Your task to perform on an android device: What's the weather like in Delhi? Image 0: 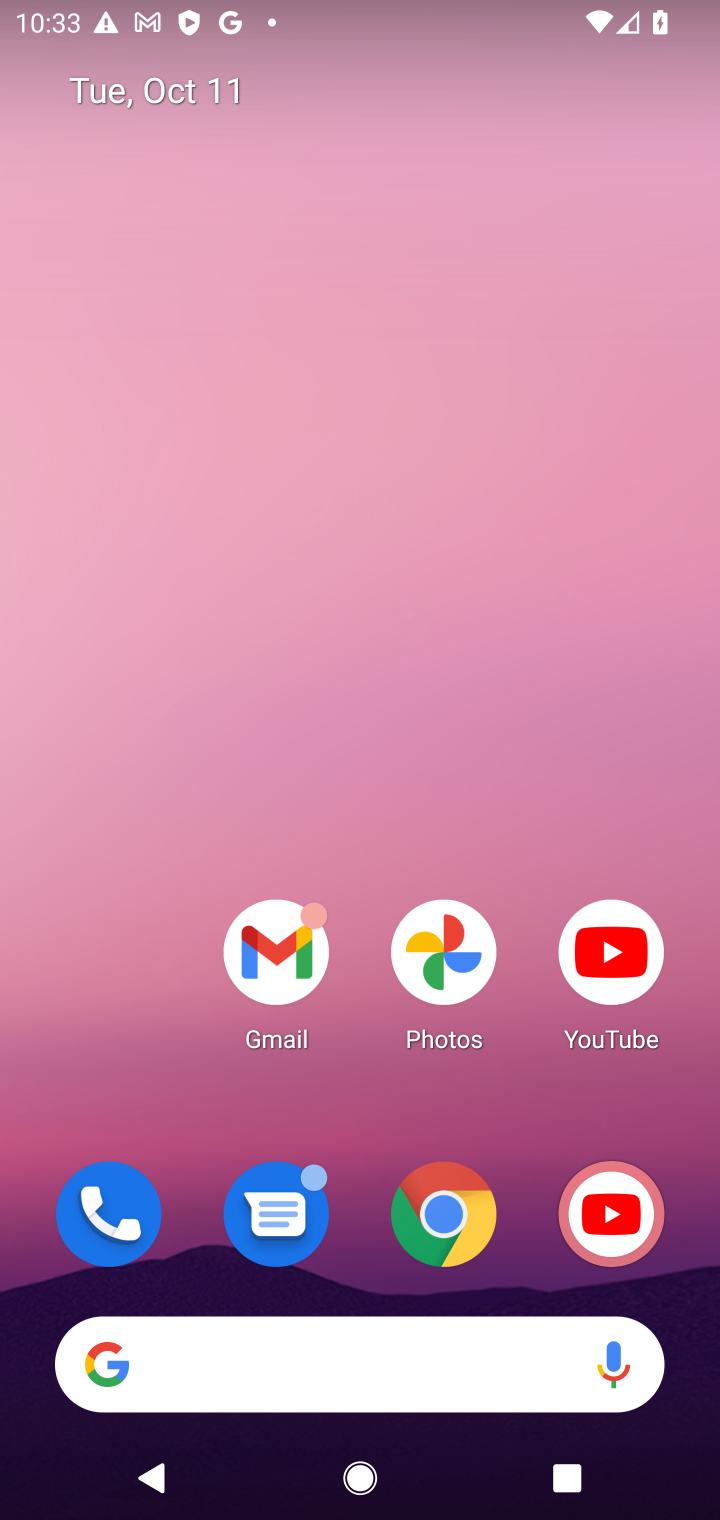
Step 0: drag from (377, 104) to (392, 4)
Your task to perform on an android device: What's the weather like in Delhi? Image 1: 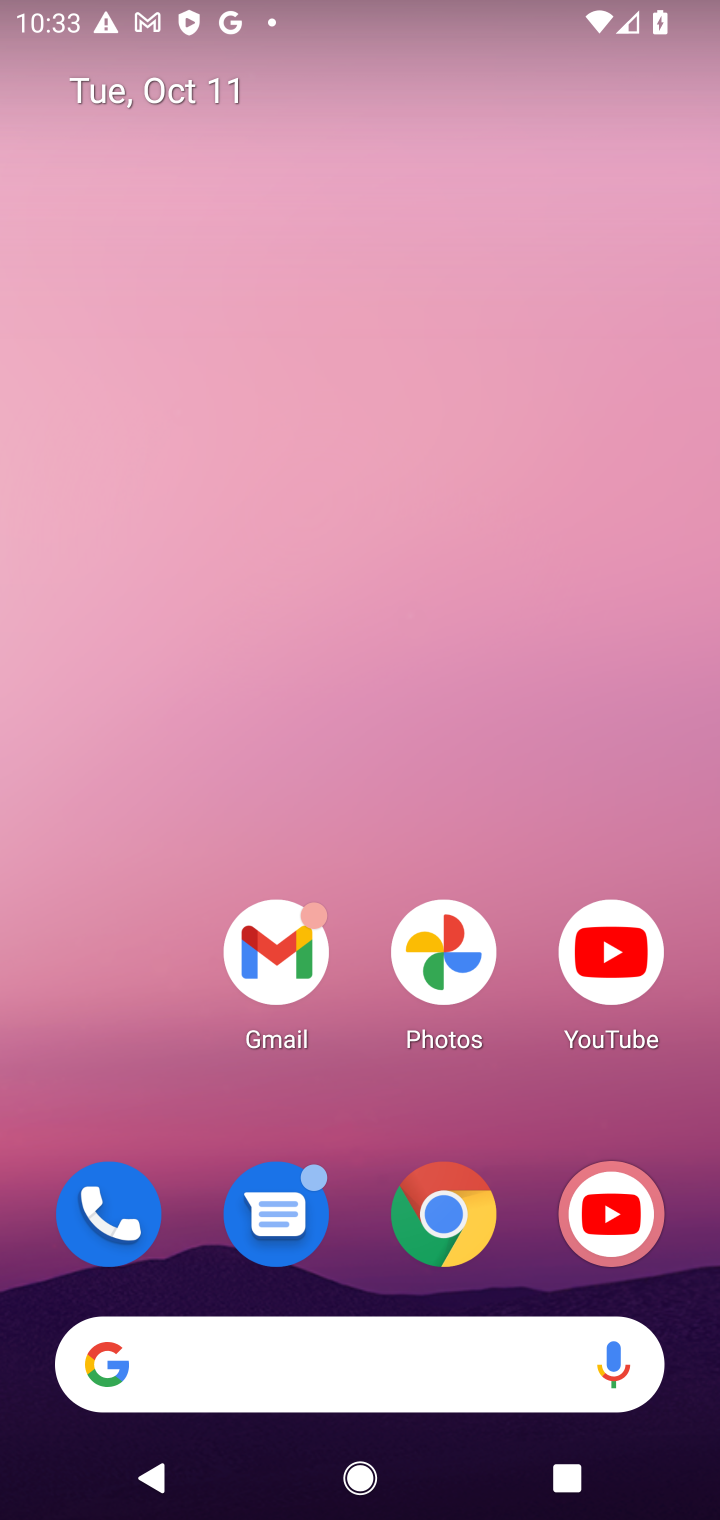
Step 1: drag from (361, 1069) to (387, 298)
Your task to perform on an android device: What's the weather like in Delhi? Image 2: 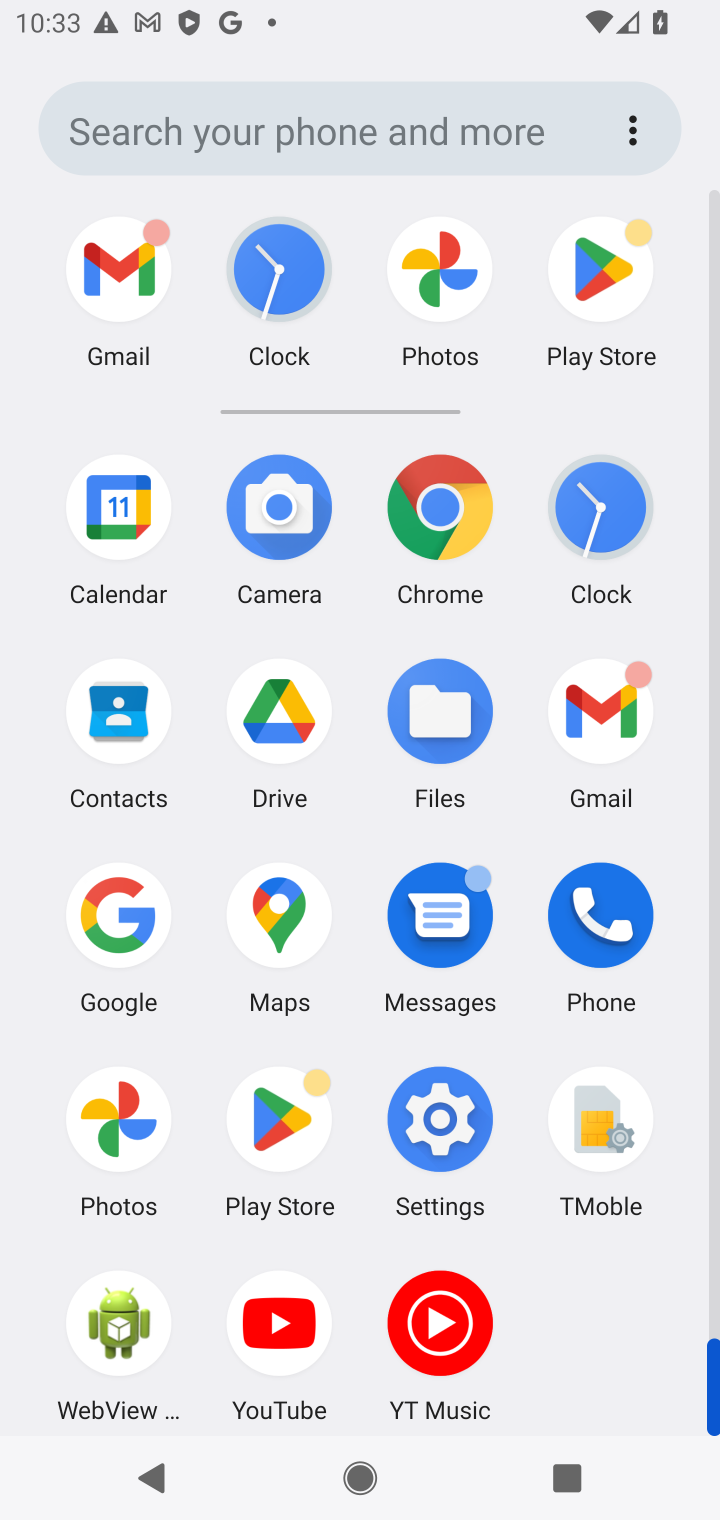
Step 2: click (441, 509)
Your task to perform on an android device: What's the weather like in Delhi? Image 3: 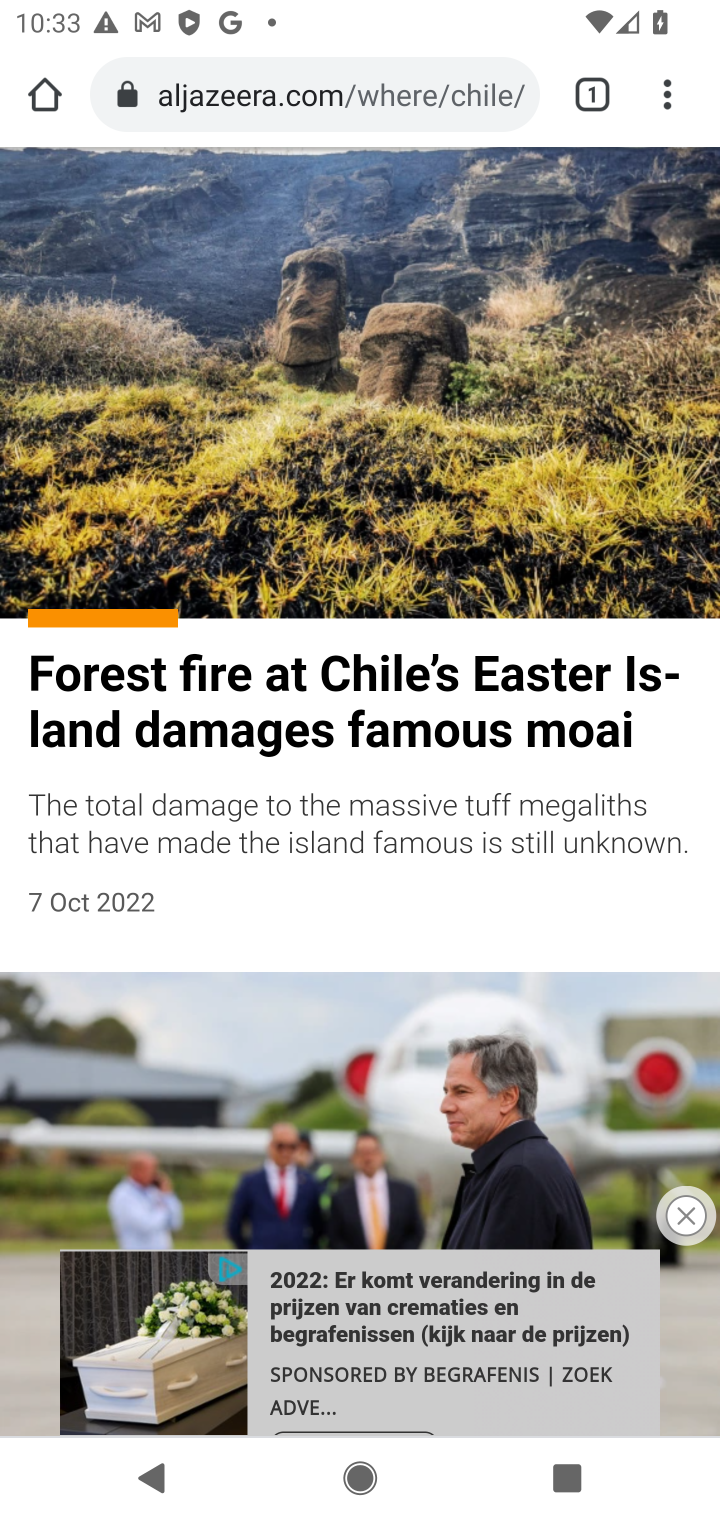
Step 3: click (364, 88)
Your task to perform on an android device: What's the weather like in Delhi? Image 4: 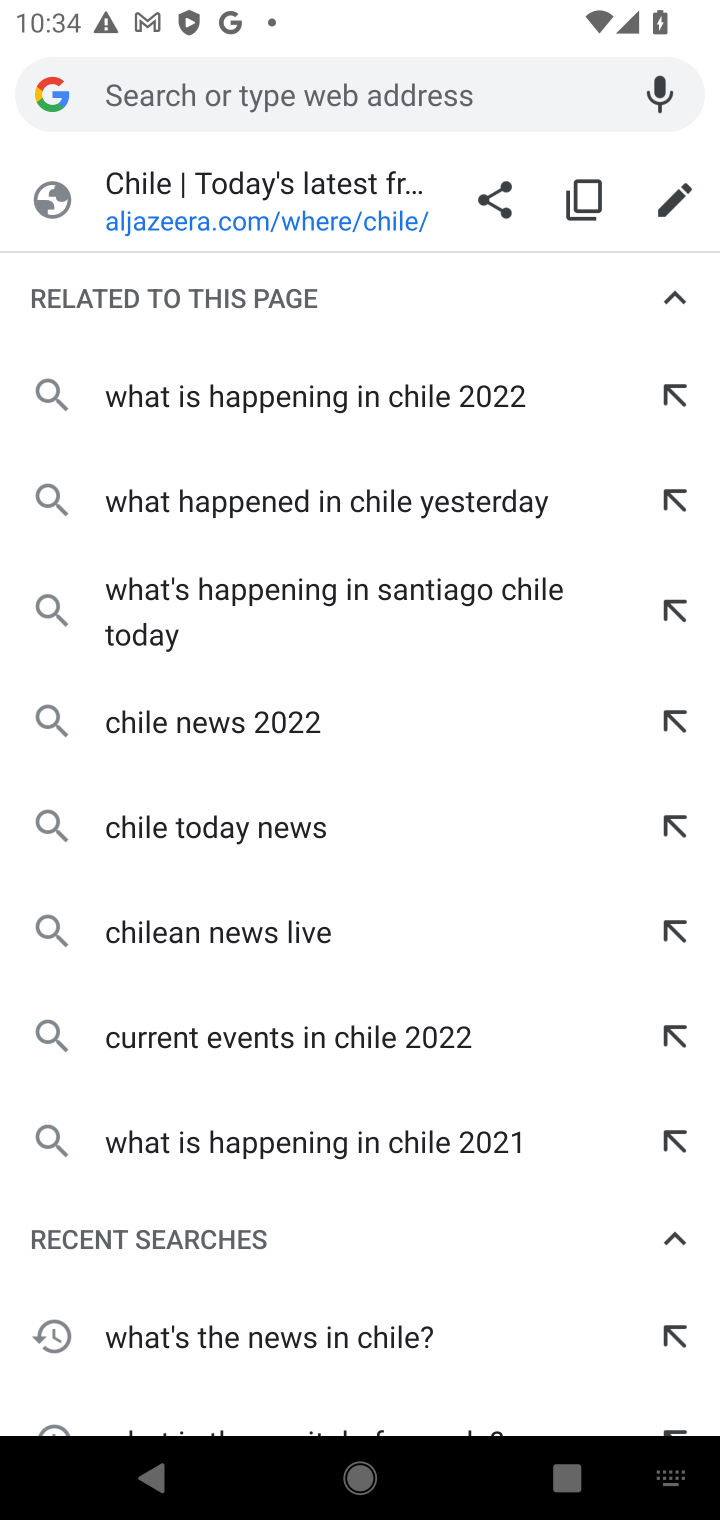
Step 4: type "What is the weather like in Delhi?"
Your task to perform on an android device: What's the weather like in Delhi? Image 5: 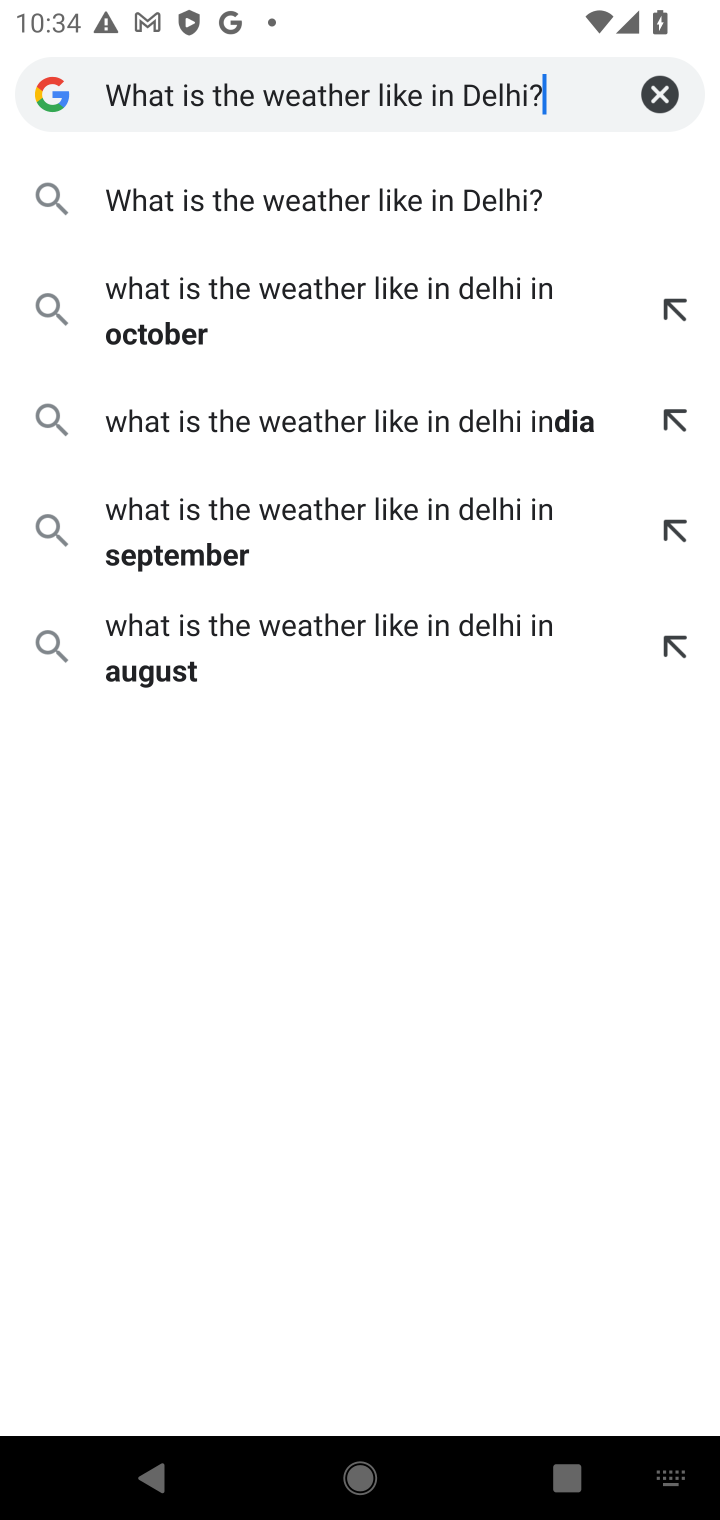
Step 5: press enter
Your task to perform on an android device: What's the weather like in Delhi? Image 6: 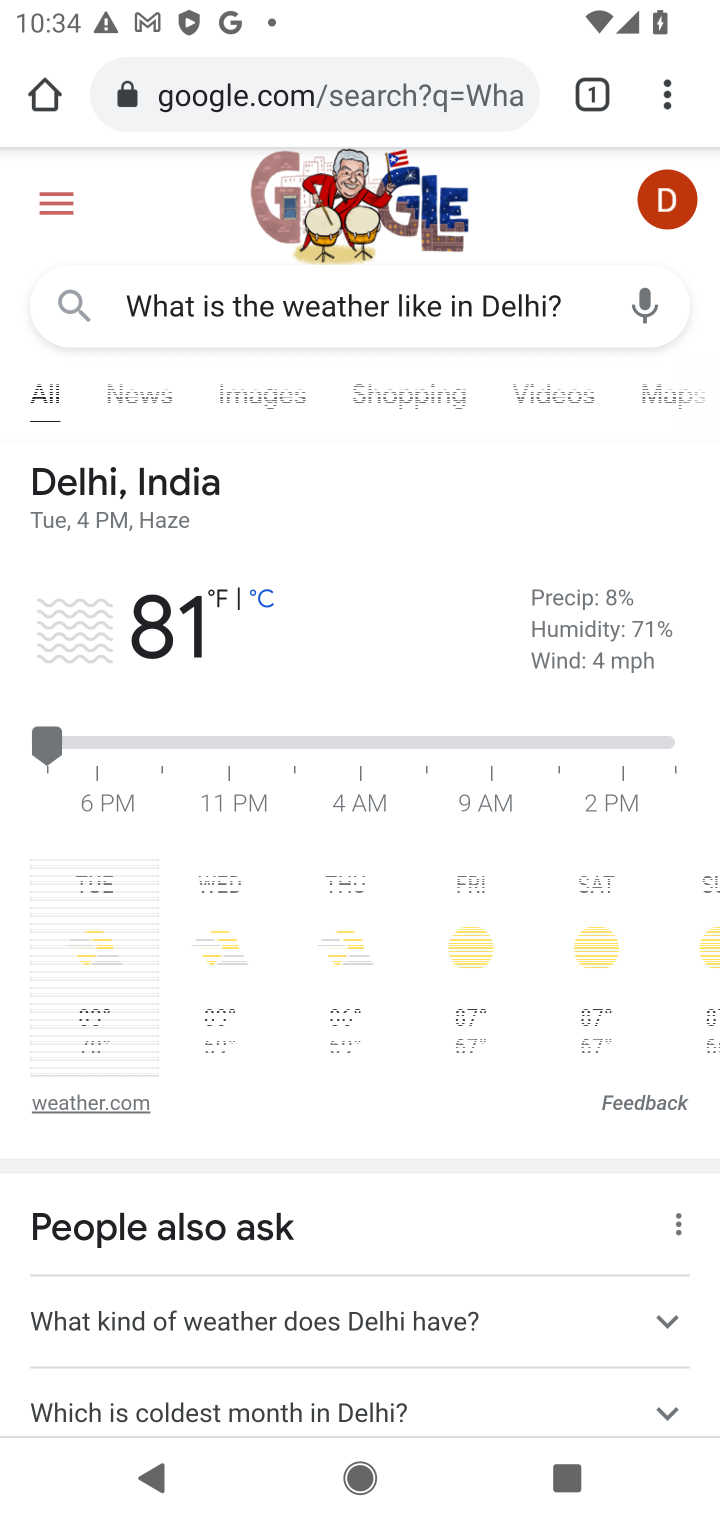
Step 6: task complete